Your task to perform on an android device: install app "WhatsApp Messenger" Image 0: 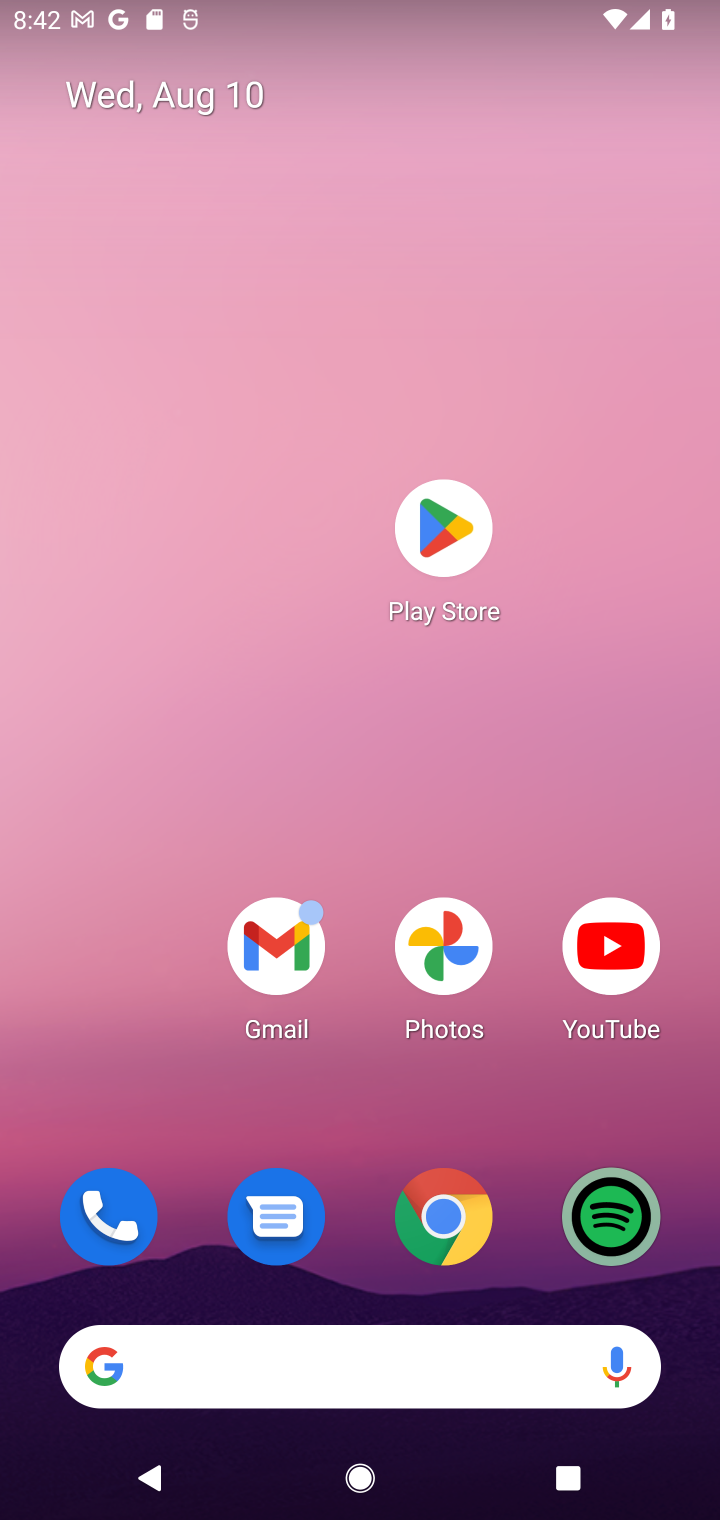
Step 0: click (430, 528)
Your task to perform on an android device: install app "WhatsApp Messenger" Image 1: 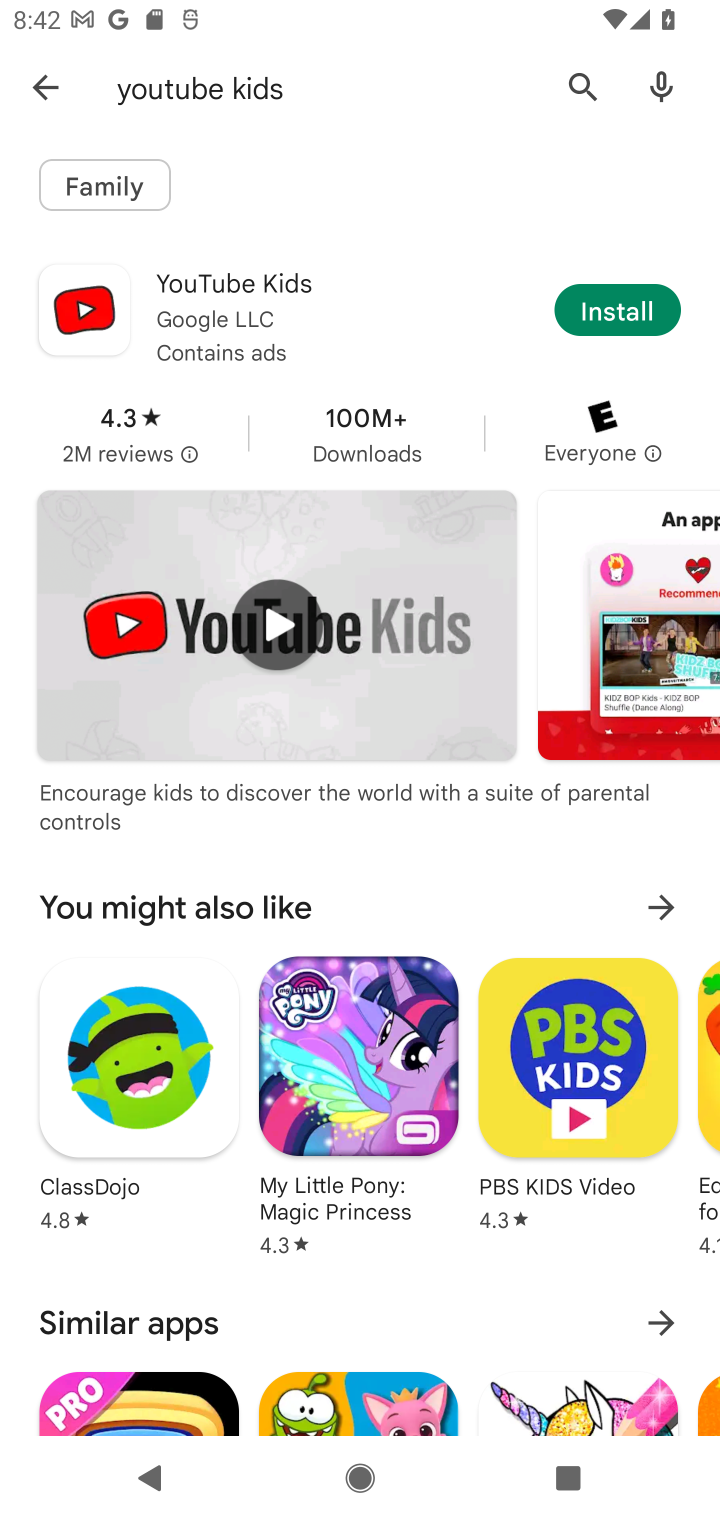
Step 1: click (570, 74)
Your task to perform on an android device: install app "WhatsApp Messenger" Image 2: 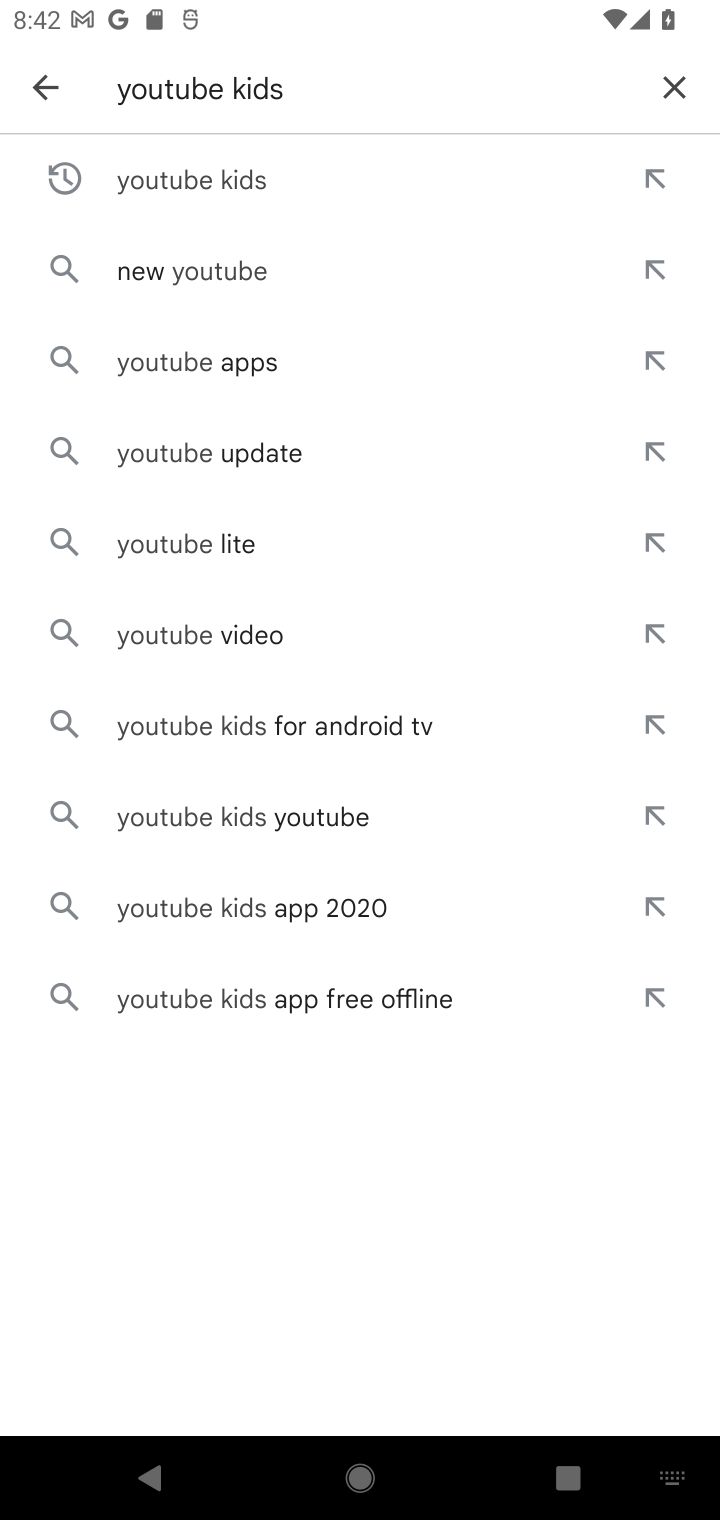
Step 2: click (681, 78)
Your task to perform on an android device: install app "WhatsApp Messenger" Image 3: 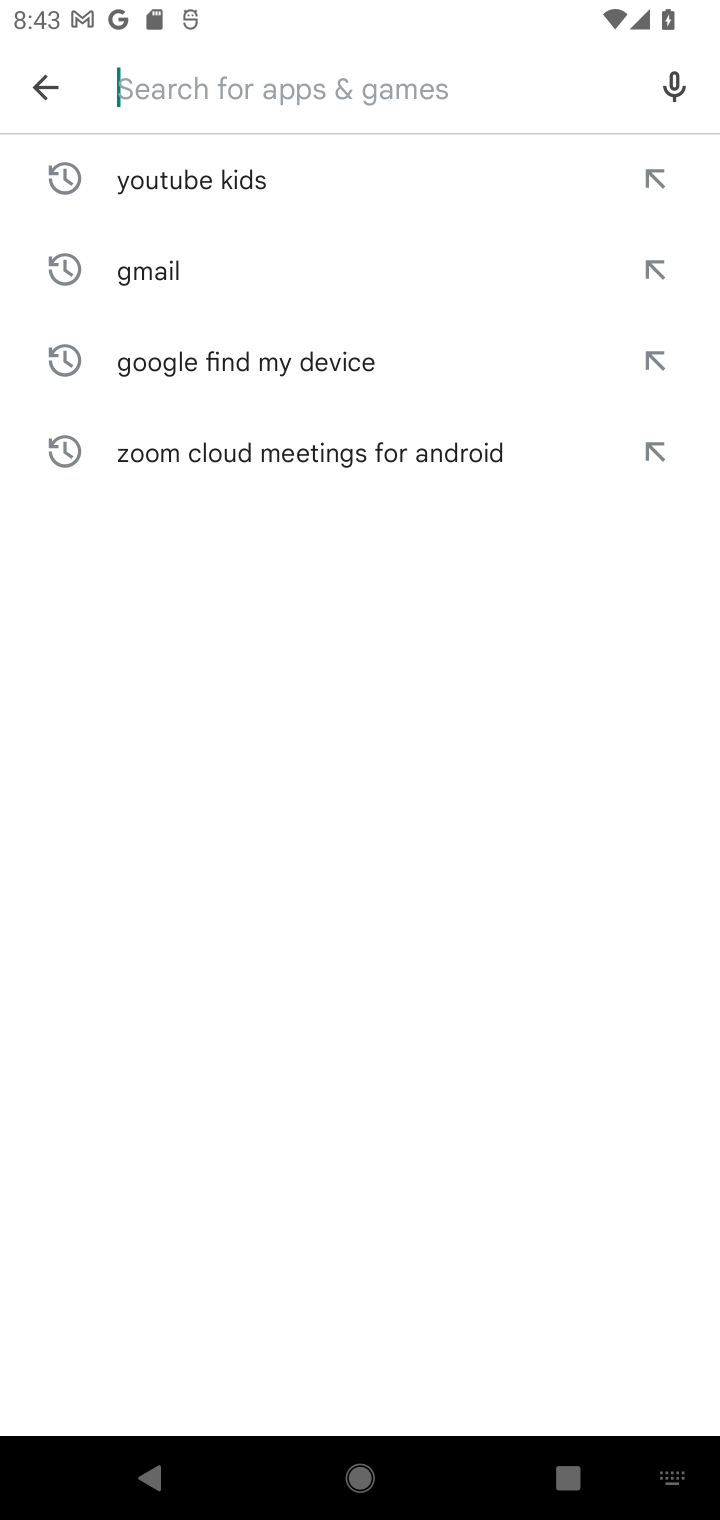
Step 3: type "WhatsApp Messenger"
Your task to perform on an android device: install app "WhatsApp Messenger" Image 4: 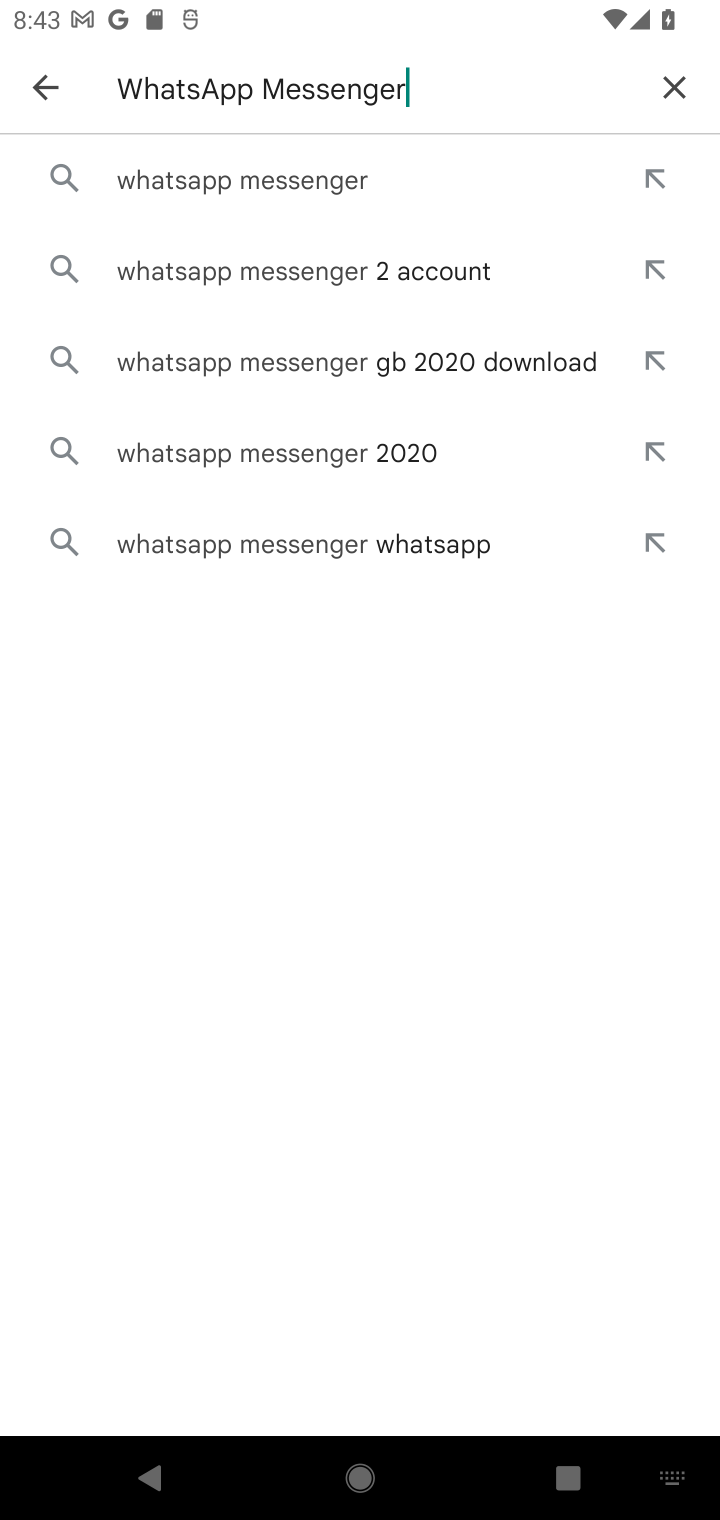
Step 4: click (341, 191)
Your task to perform on an android device: install app "WhatsApp Messenger" Image 5: 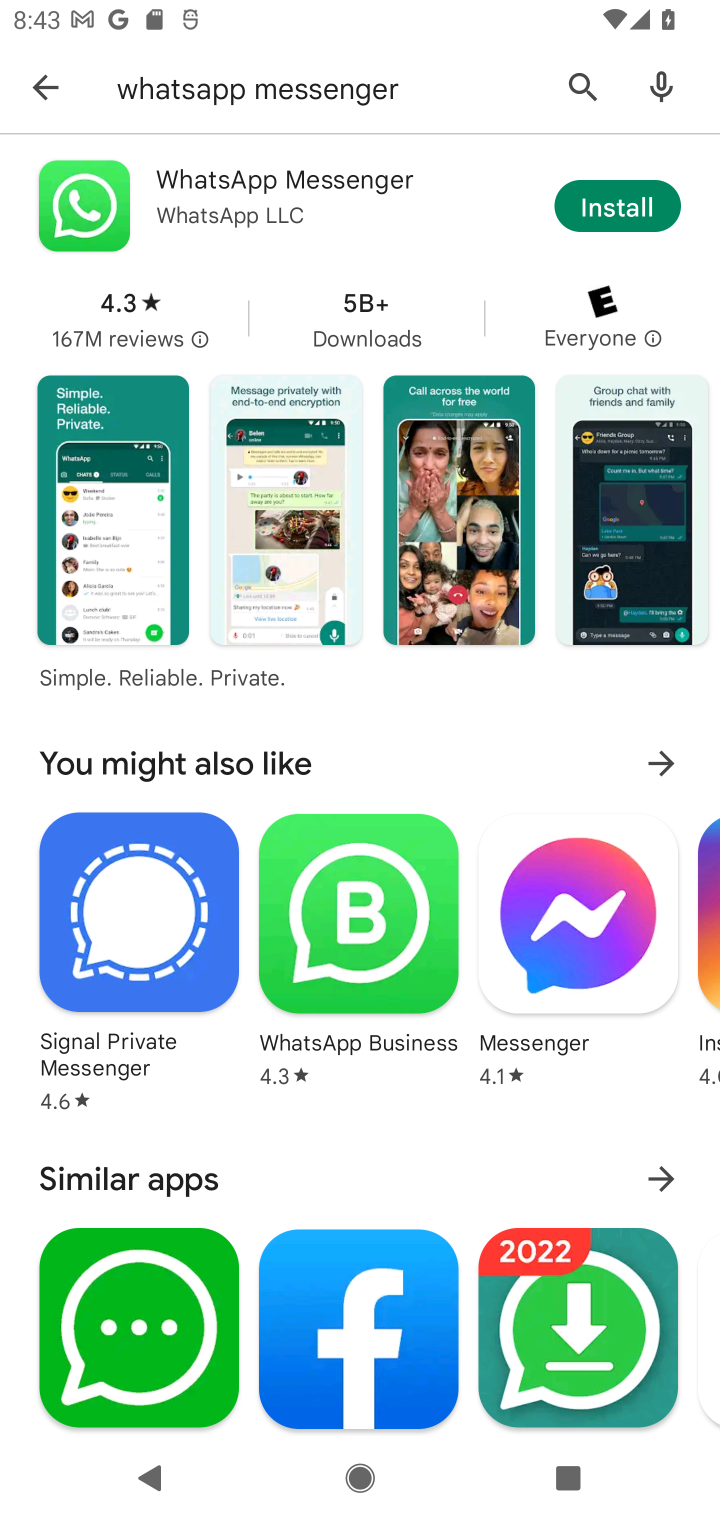
Step 5: click (599, 206)
Your task to perform on an android device: install app "WhatsApp Messenger" Image 6: 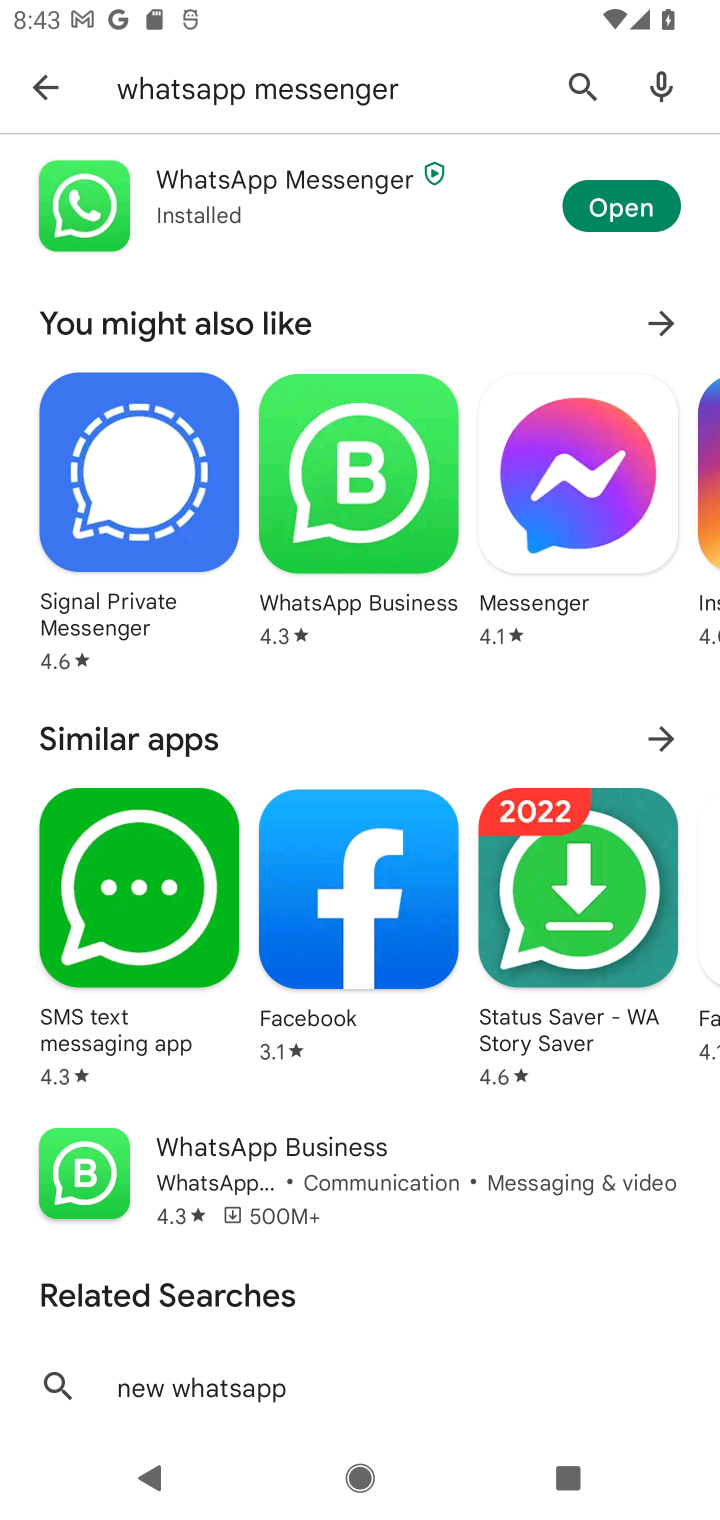
Step 6: task complete